Your task to perform on an android device: open app "TextNow: Call + Text Unlimited" (install if not already installed) Image 0: 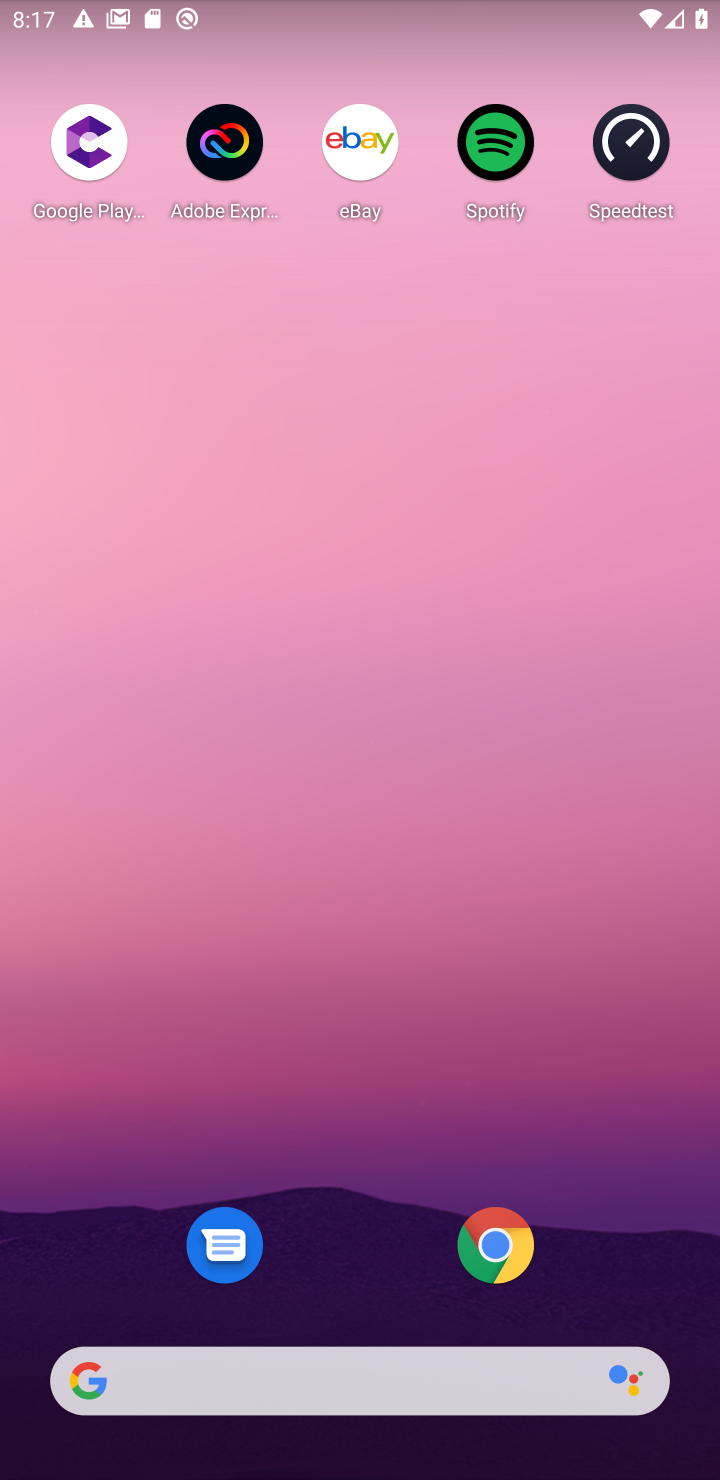
Step 0: drag from (384, 1297) to (394, 261)
Your task to perform on an android device: open app "TextNow: Call + Text Unlimited" (install if not already installed) Image 1: 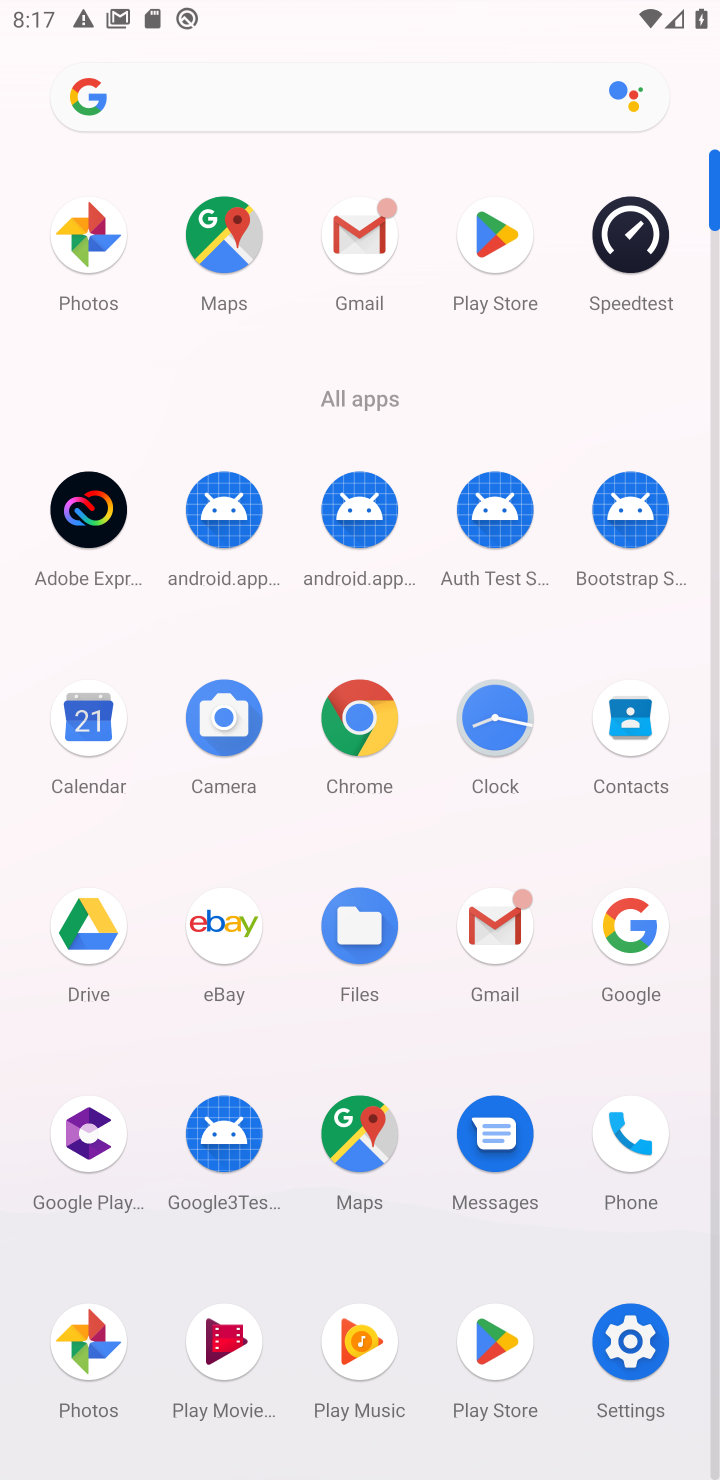
Step 1: click (499, 1369)
Your task to perform on an android device: open app "TextNow: Call + Text Unlimited" (install if not already installed) Image 2: 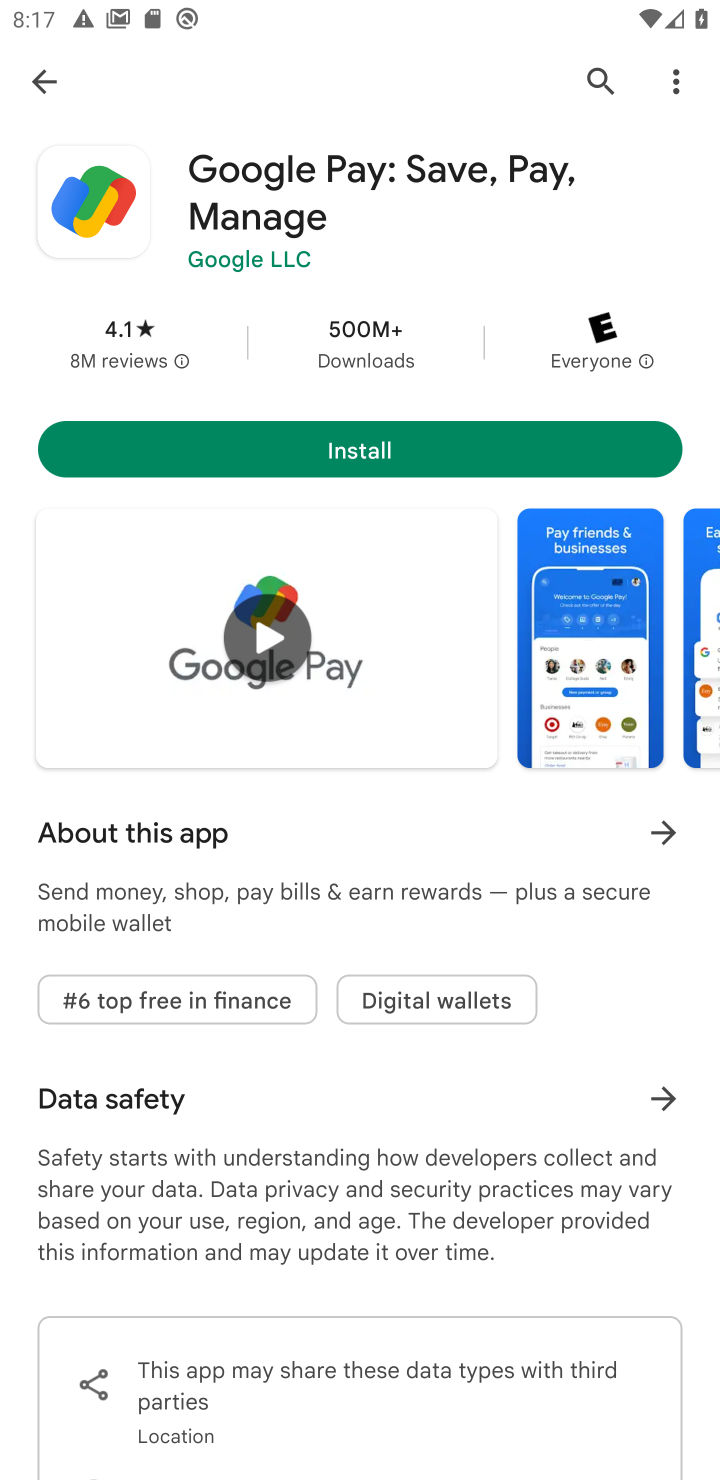
Step 2: click (35, 64)
Your task to perform on an android device: open app "TextNow: Call + Text Unlimited" (install if not already installed) Image 3: 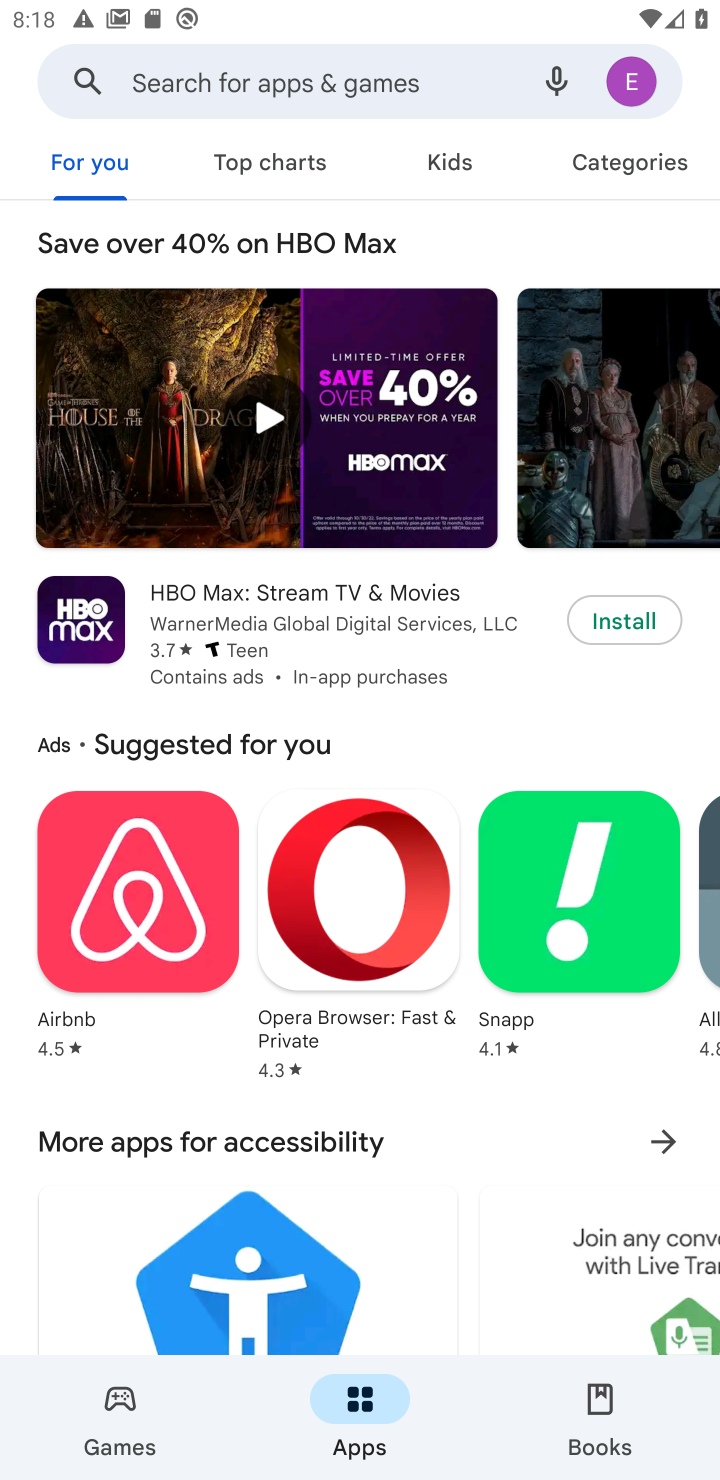
Step 3: click (269, 102)
Your task to perform on an android device: open app "TextNow: Call + Text Unlimited" (install if not already installed) Image 4: 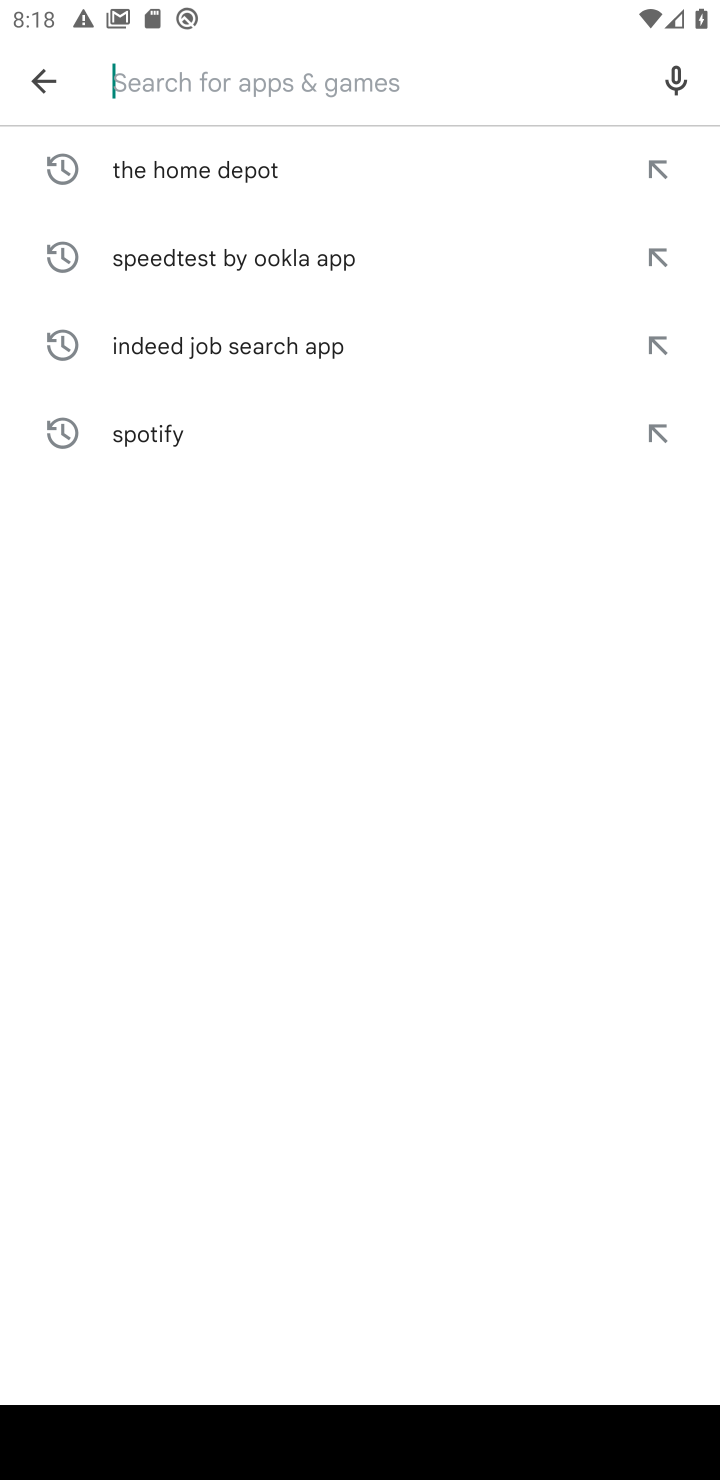
Step 4: drag from (274, 1419) to (632, 1270)
Your task to perform on an android device: open app "TextNow: Call + Text Unlimited" (install if not already installed) Image 5: 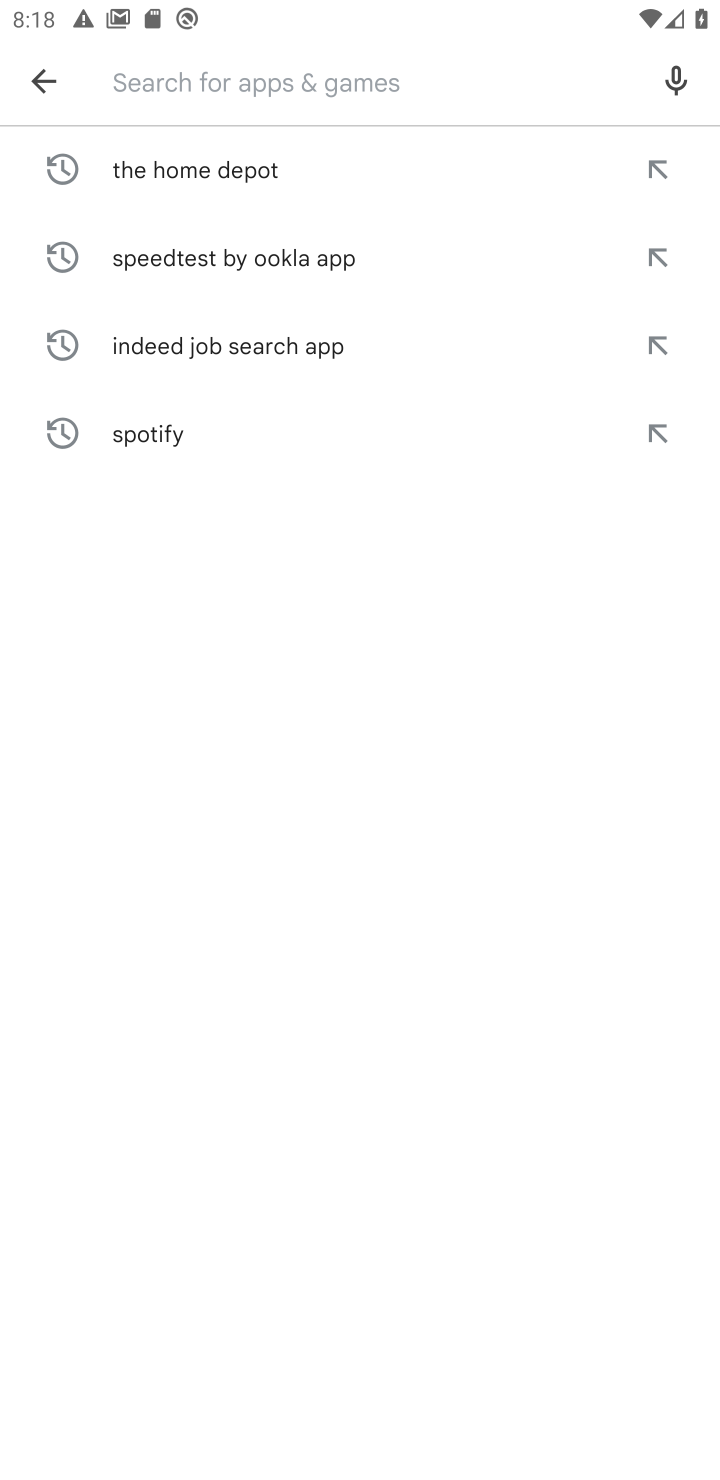
Step 5: type "TextNow: Call + Text Unlimited"
Your task to perform on an android device: open app "TextNow: Call + Text Unlimited" (install if not already installed) Image 6: 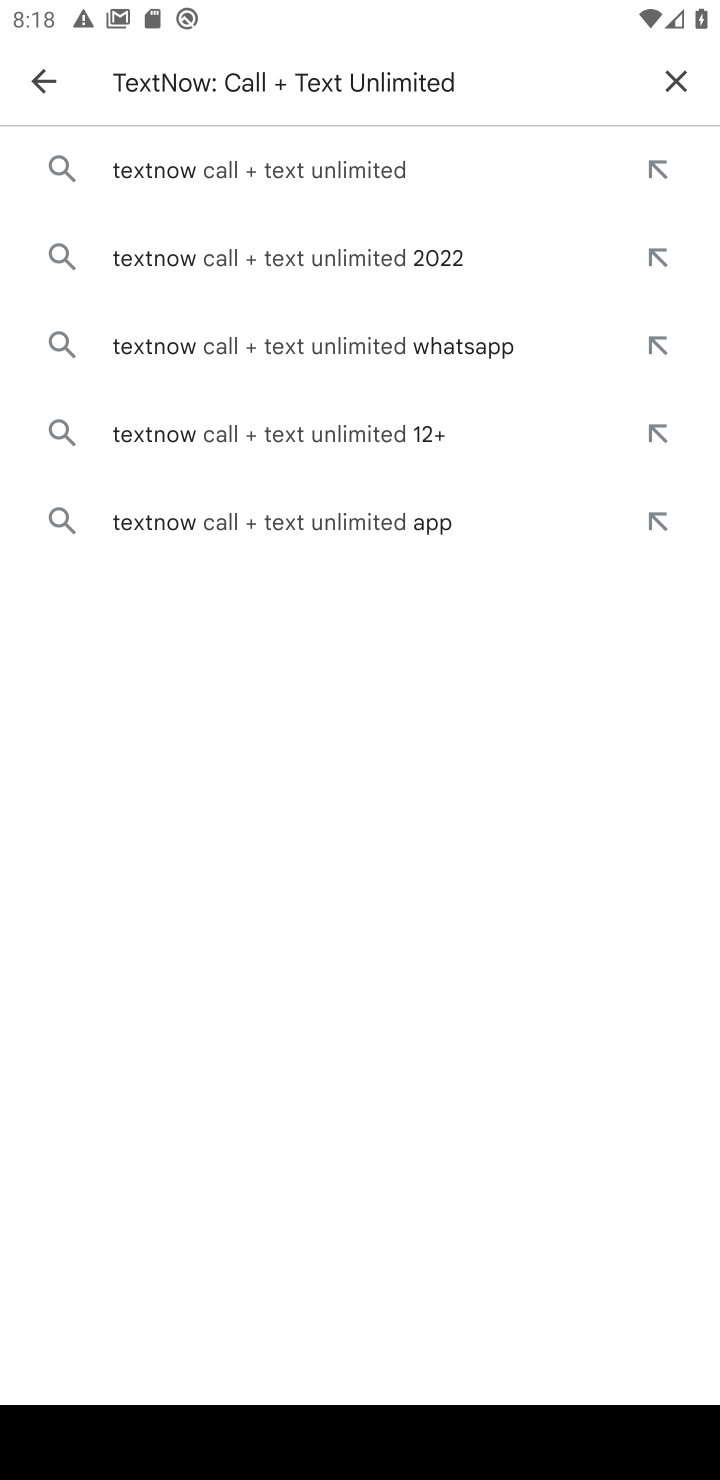
Step 6: click (208, 156)
Your task to perform on an android device: open app "TextNow: Call + Text Unlimited" (install if not already installed) Image 7: 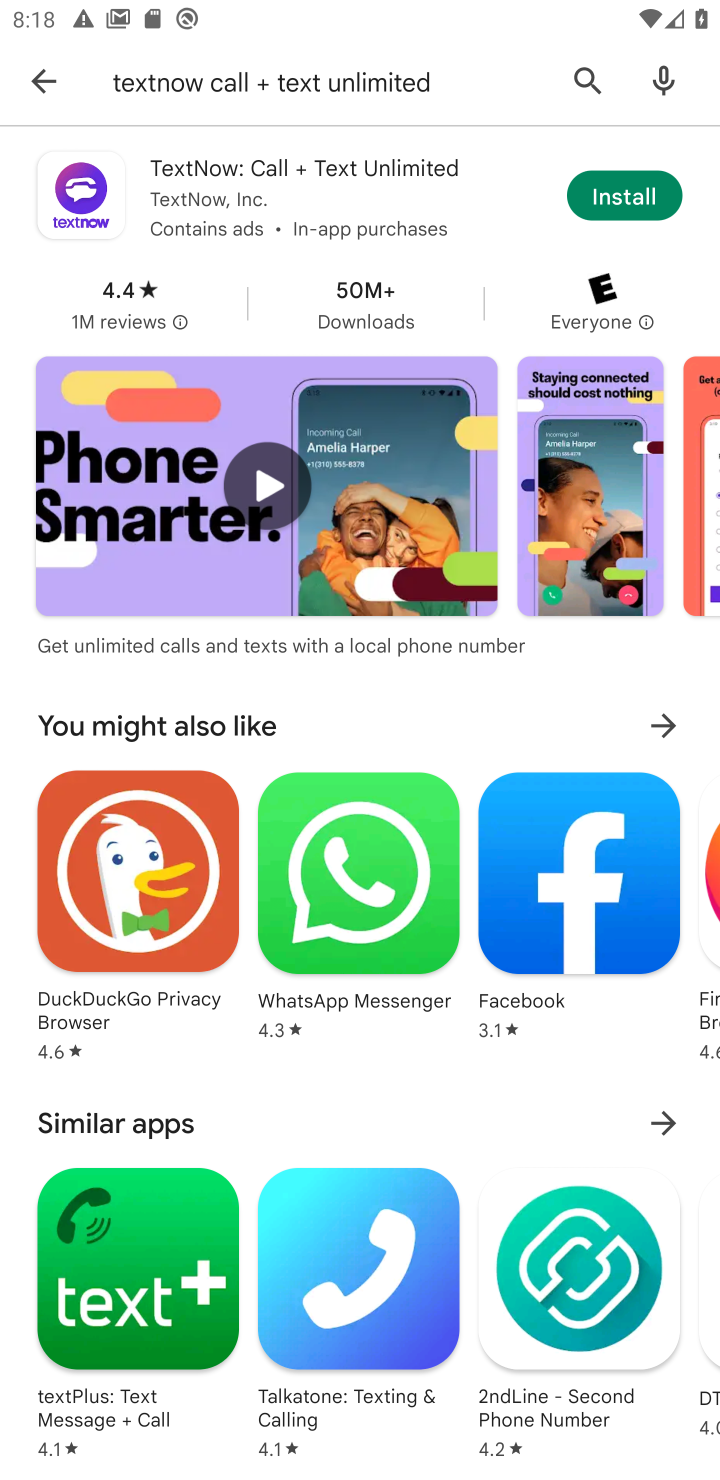
Step 7: click (642, 208)
Your task to perform on an android device: open app "TextNow: Call + Text Unlimited" (install if not already installed) Image 8: 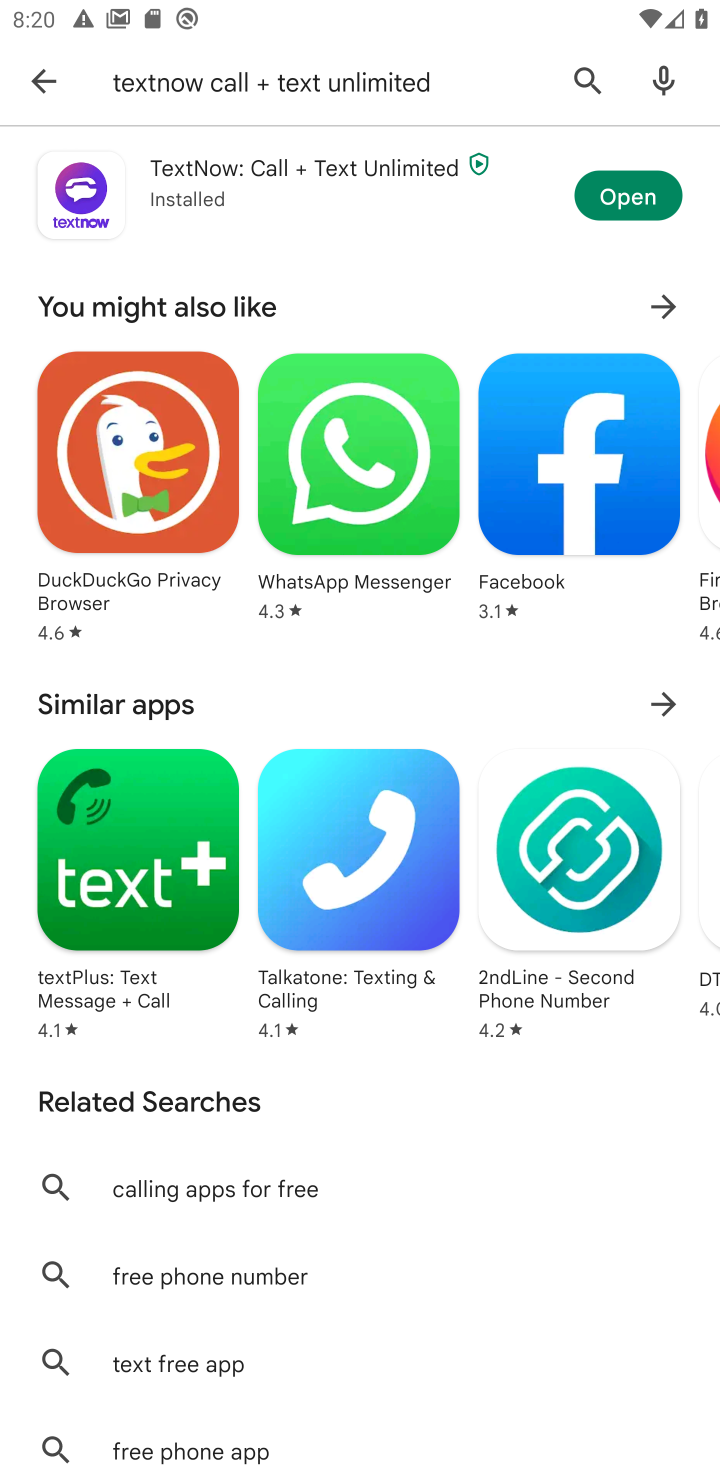
Step 8: click (629, 185)
Your task to perform on an android device: open app "TextNow: Call + Text Unlimited" (install if not already installed) Image 9: 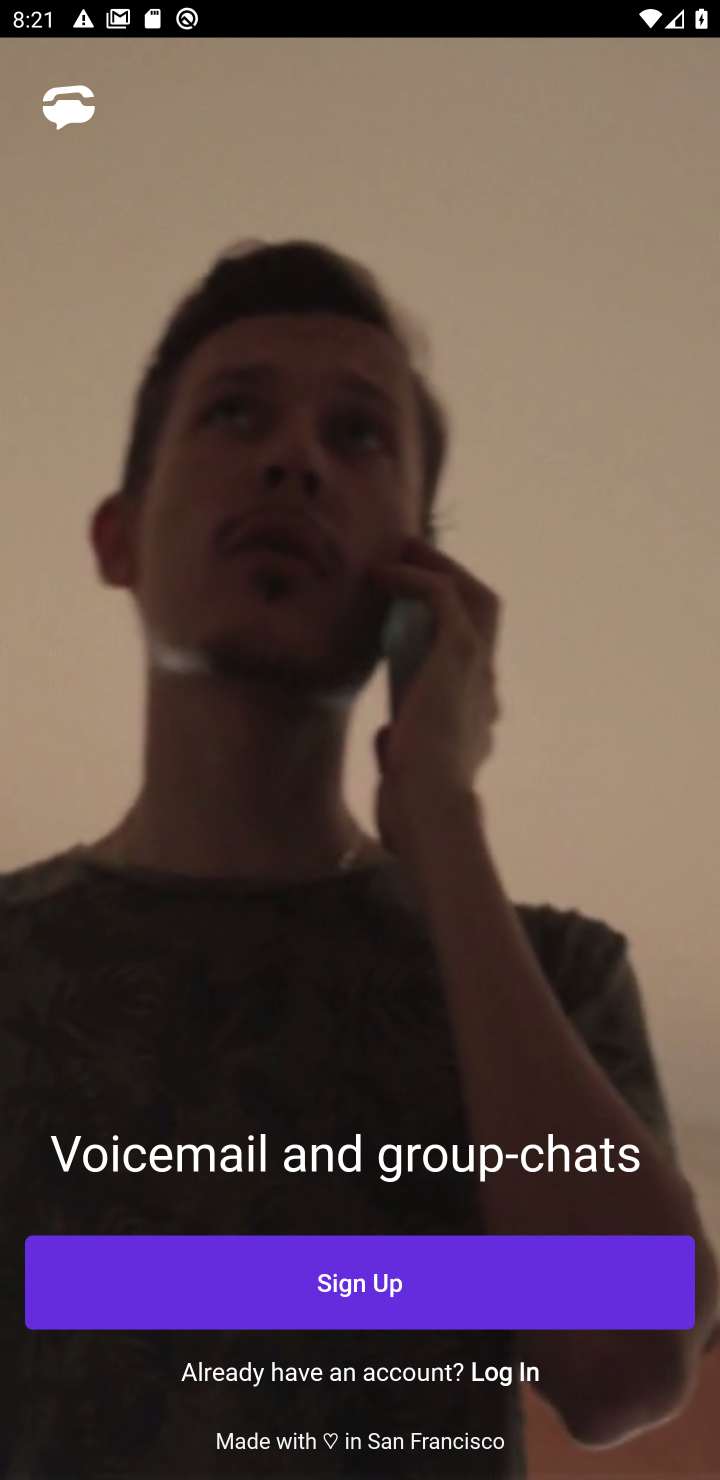
Step 9: task complete